Your task to perform on an android device: install app "LinkedIn" Image 0: 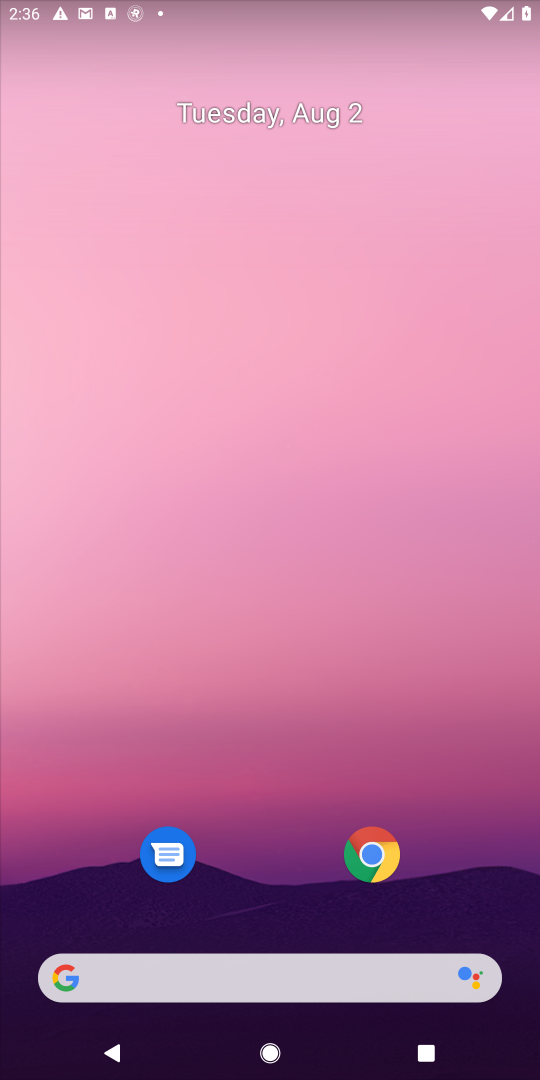
Step 0: drag from (313, 1016) to (251, 75)
Your task to perform on an android device: install app "LinkedIn" Image 1: 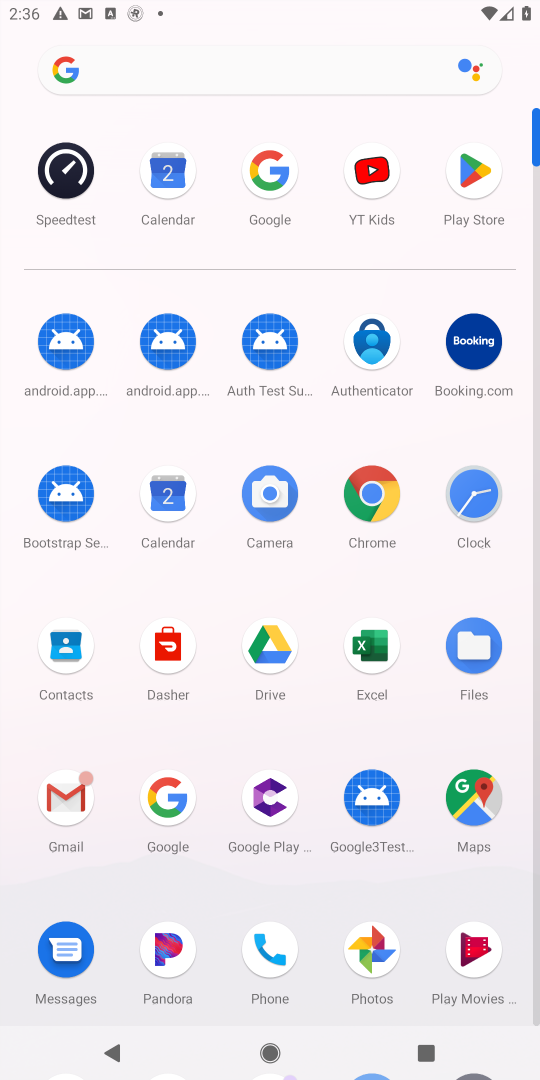
Step 1: drag from (413, 928) to (400, 405)
Your task to perform on an android device: install app "LinkedIn" Image 2: 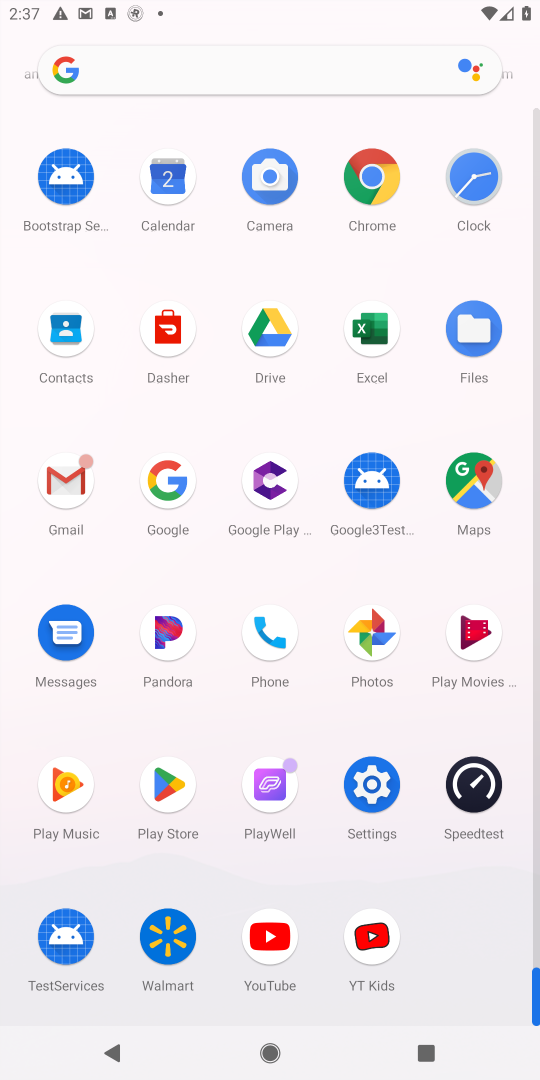
Step 2: click (160, 771)
Your task to perform on an android device: install app "LinkedIn" Image 3: 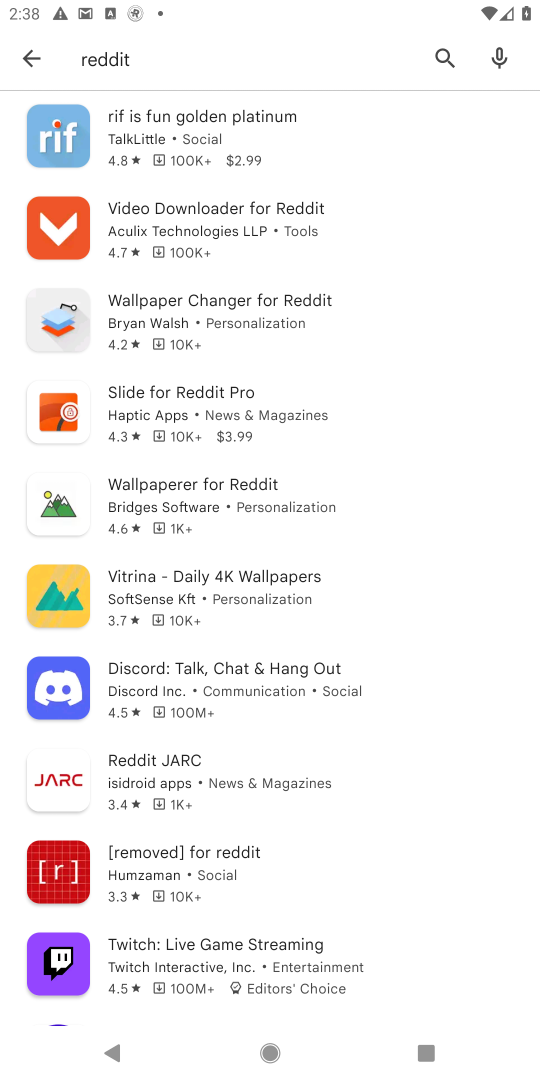
Step 3: click (438, 50)
Your task to perform on an android device: install app "LinkedIn" Image 4: 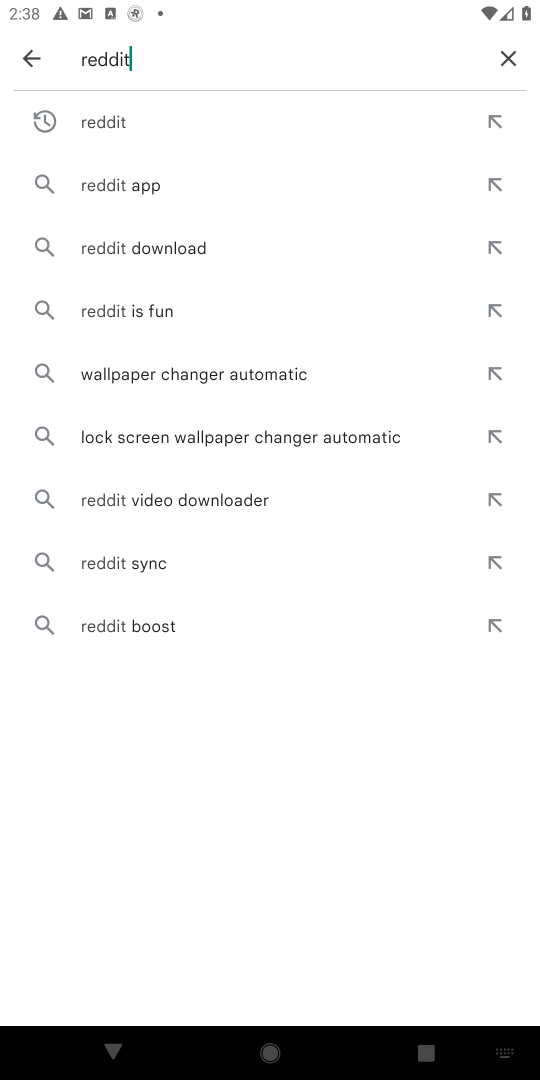
Step 4: click (503, 50)
Your task to perform on an android device: install app "LinkedIn" Image 5: 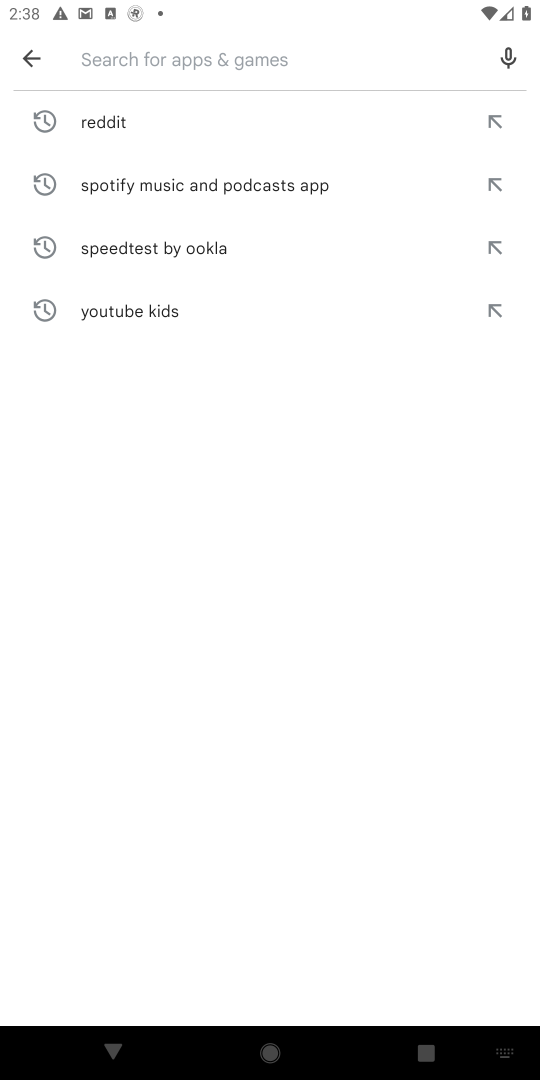
Step 5: type "LinkedIn"
Your task to perform on an android device: install app "LinkedIn" Image 6: 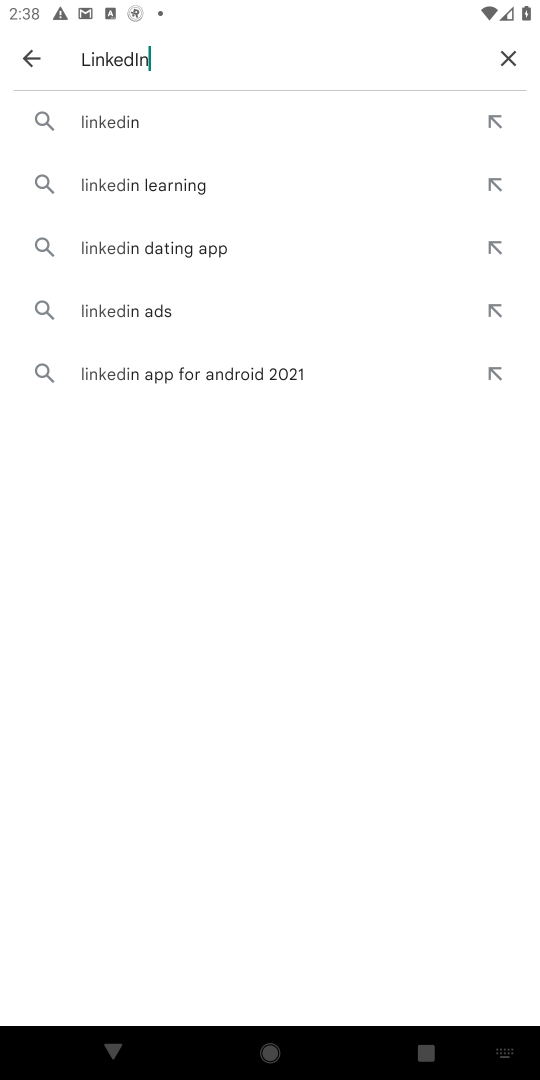
Step 6: type ""
Your task to perform on an android device: install app "LinkedIn" Image 7: 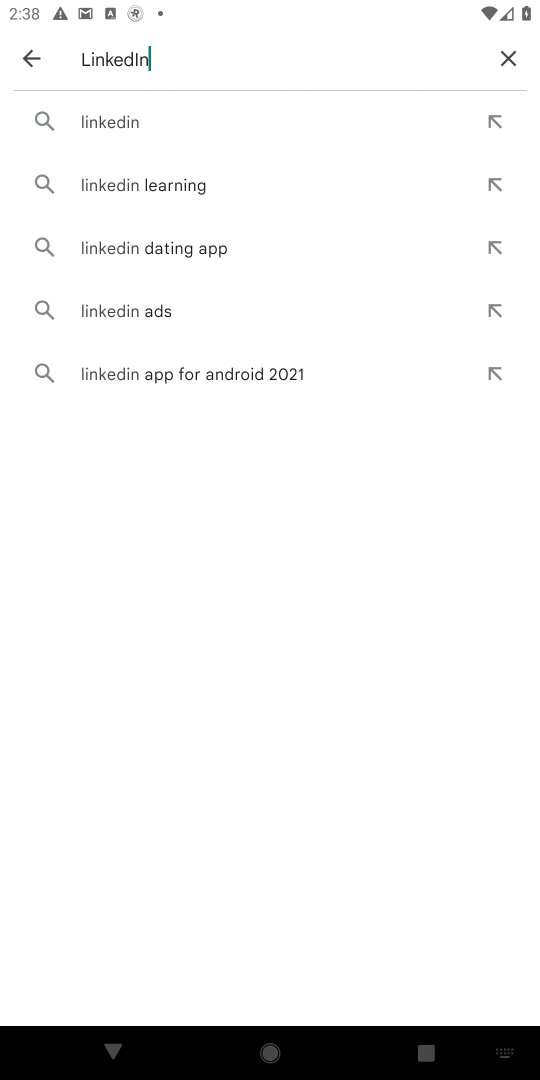
Step 7: click (109, 128)
Your task to perform on an android device: install app "LinkedIn" Image 8: 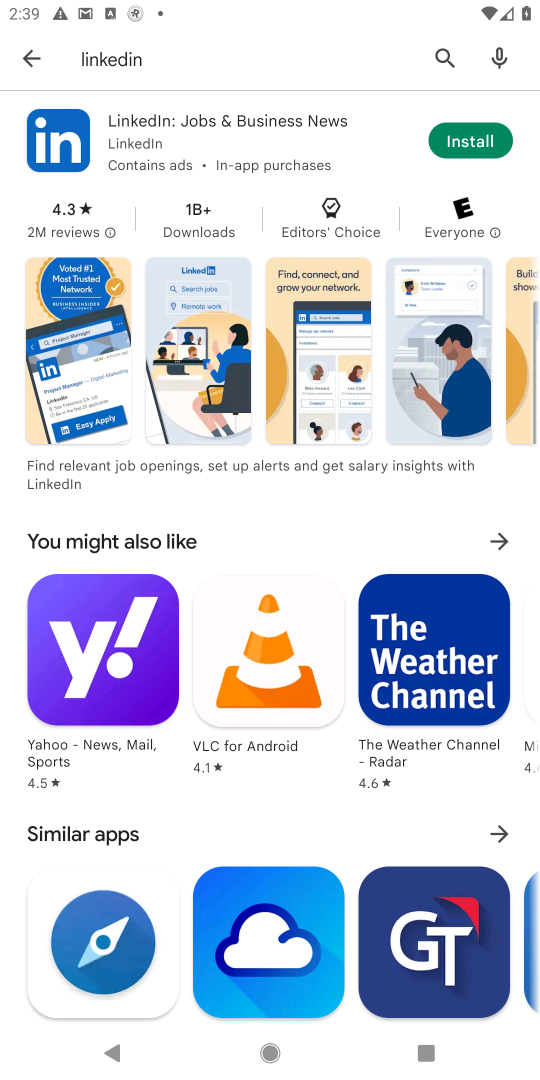
Step 8: click (454, 137)
Your task to perform on an android device: install app "LinkedIn" Image 9: 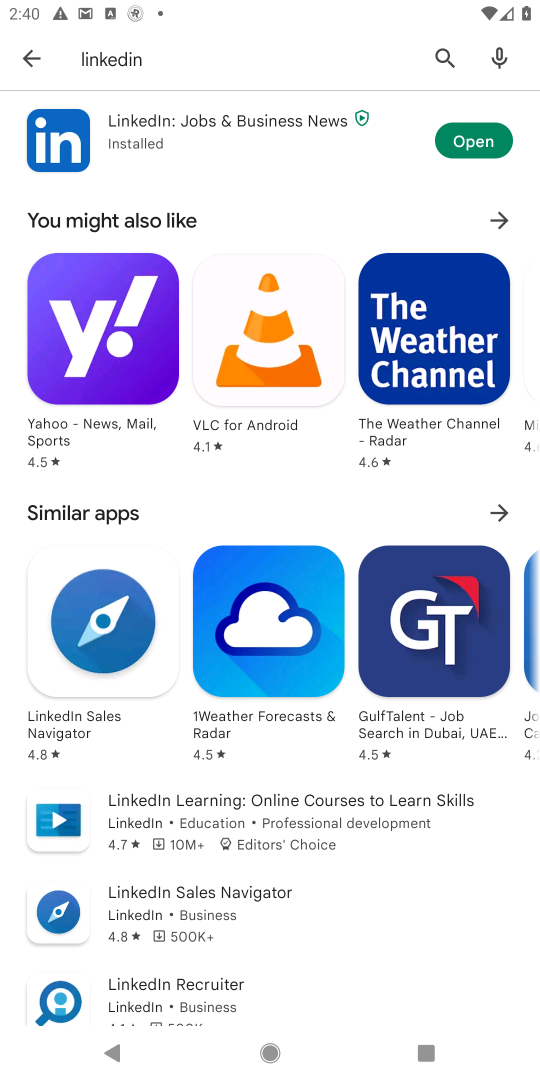
Step 9: task complete